Your task to perform on an android device: open chrome and create a bookmark for the current page Image 0: 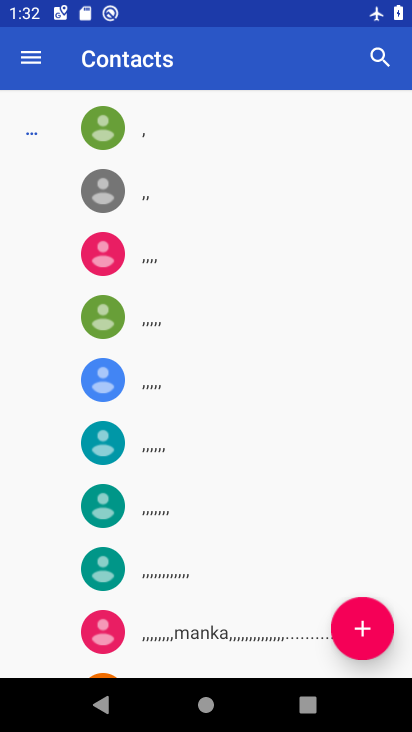
Step 0: press home button
Your task to perform on an android device: open chrome and create a bookmark for the current page Image 1: 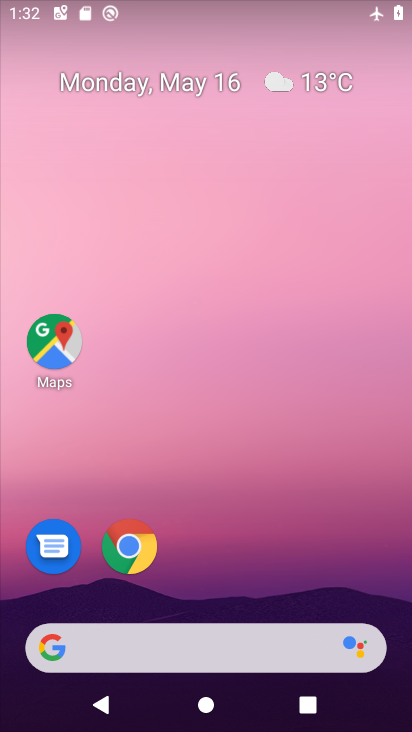
Step 1: click (130, 538)
Your task to perform on an android device: open chrome and create a bookmark for the current page Image 2: 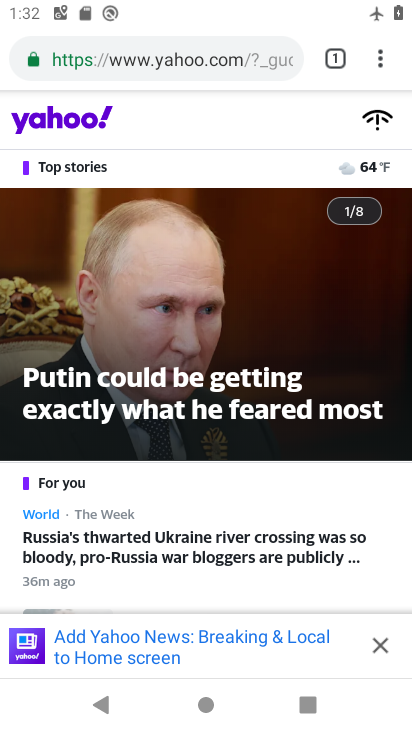
Step 2: click (379, 69)
Your task to perform on an android device: open chrome and create a bookmark for the current page Image 3: 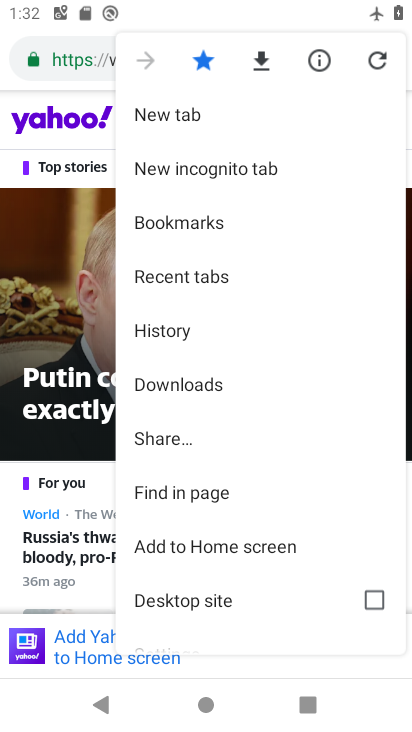
Step 3: click (318, 27)
Your task to perform on an android device: open chrome and create a bookmark for the current page Image 4: 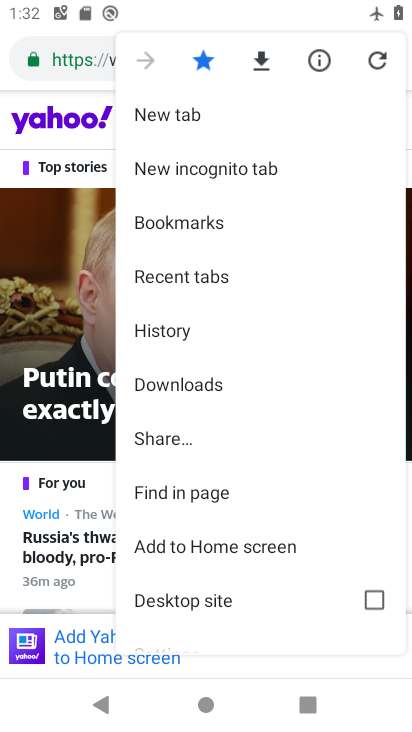
Step 4: task complete